Your task to perform on an android device: Is it going to rain this weekend? Image 0: 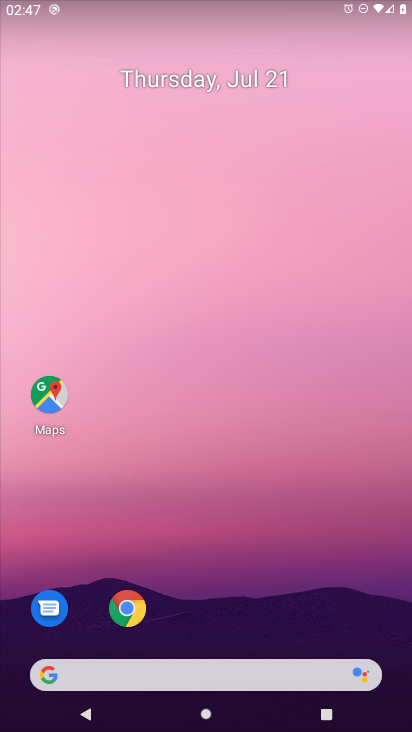
Step 0: press home button
Your task to perform on an android device: Is it going to rain this weekend? Image 1: 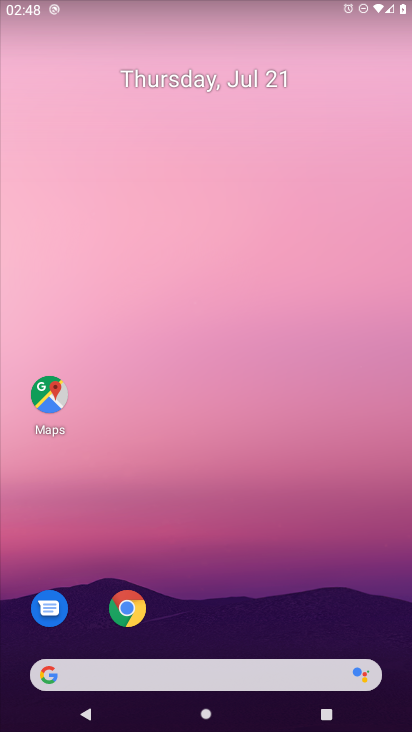
Step 1: click (40, 687)
Your task to perform on an android device: Is it going to rain this weekend? Image 2: 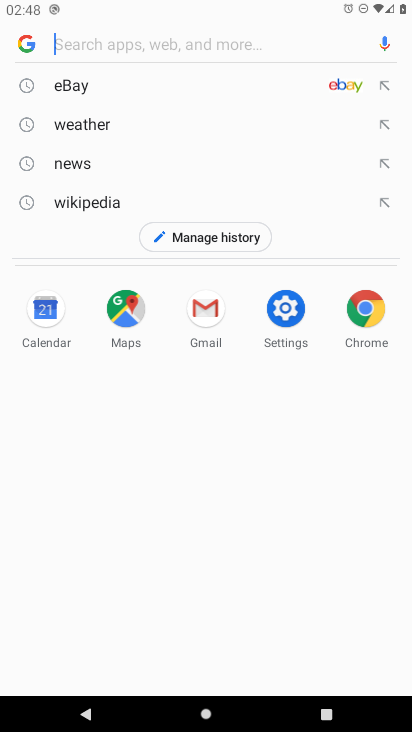
Step 2: type "rain this weekend?"
Your task to perform on an android device: Is it going to rain this weekend? Image 3: 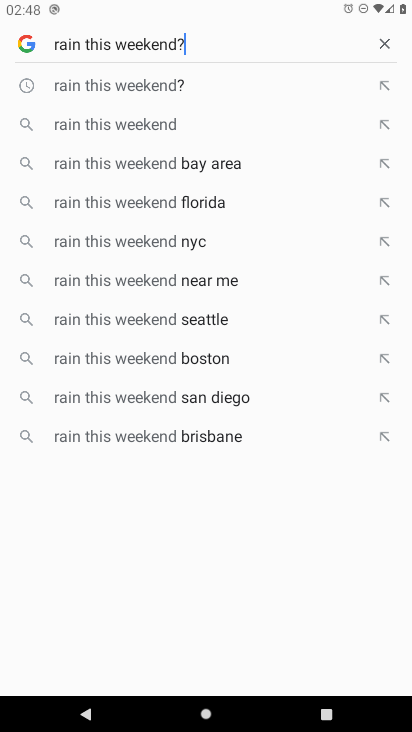
Step 3: press enter
Your task to perform on an android device: Is it going to rain this weekend? Image 4: 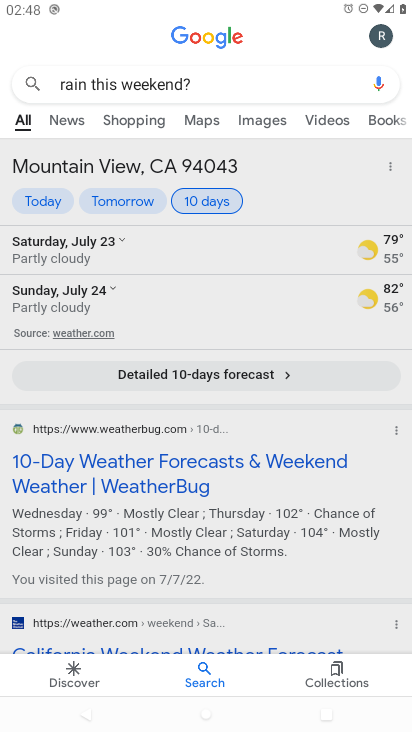
Step 4: task complete